Your task to perform on an android device: see tabs open on other devices in the chrome app Image 0: 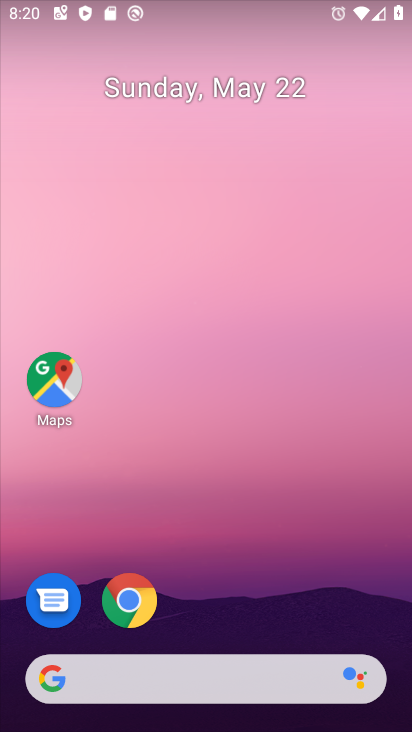
Step 0: click (133, 599)
Your task to perform on an android device: see tabs open on other devices in the chrome app Image 1: 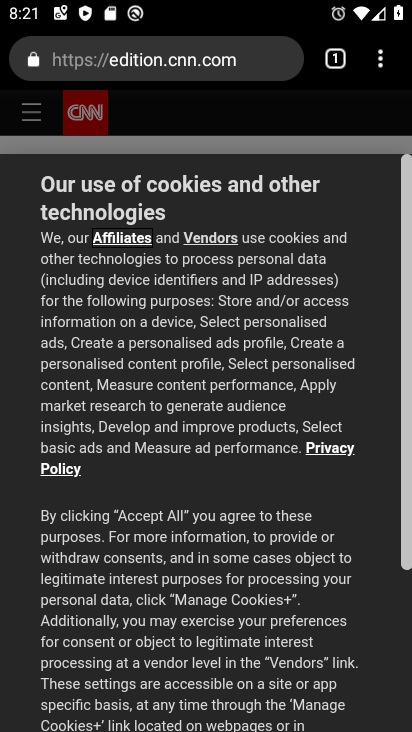
Step 1: task complete